Your task to perform on an android device: turn off location Image 0: 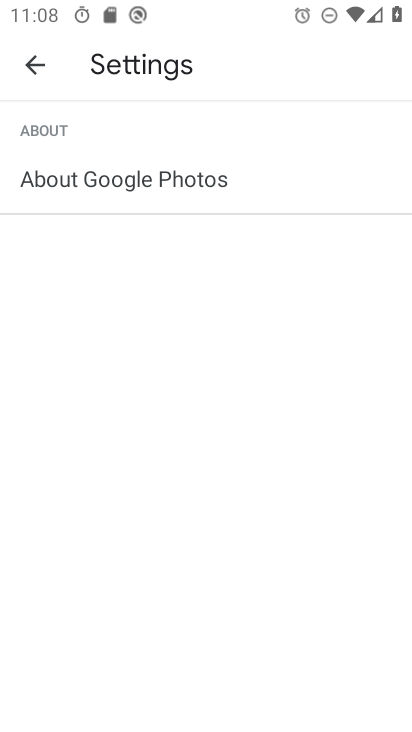
Step 0: press home button
Your task to perform on an android device: turn off location Image 1: 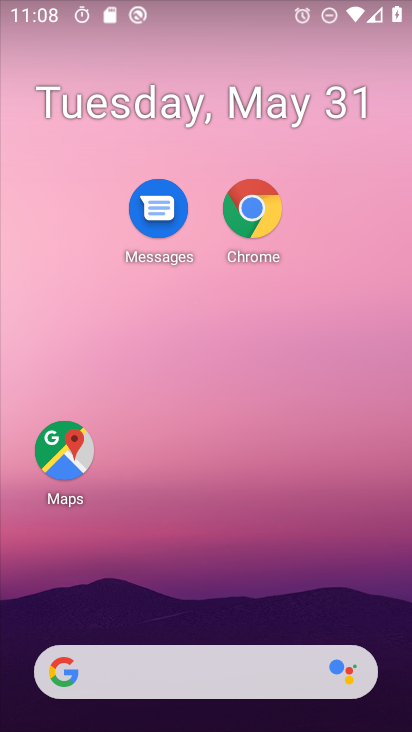
Step 1: drag from (208, 607) to (239, 92)
Your task to perform on an android device: turn off location Image 2: 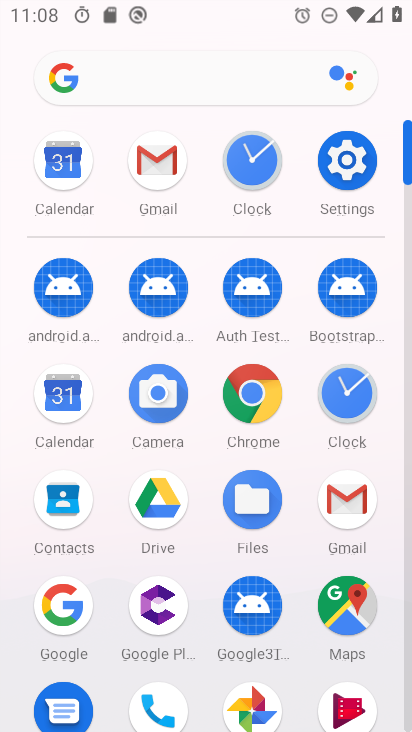
Step 2: click (345, 153)
Your task to perform on an android device: turn off location Image 3: 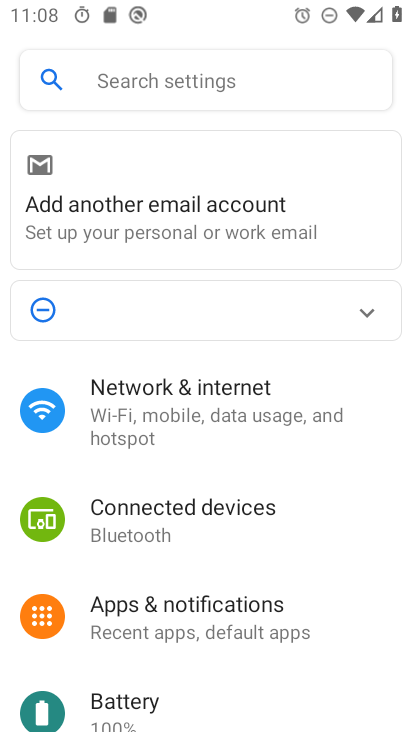
Step 3: drag from (195, 713) to (192, 633)
Your task to perform on an android device: turn off location Image 4: 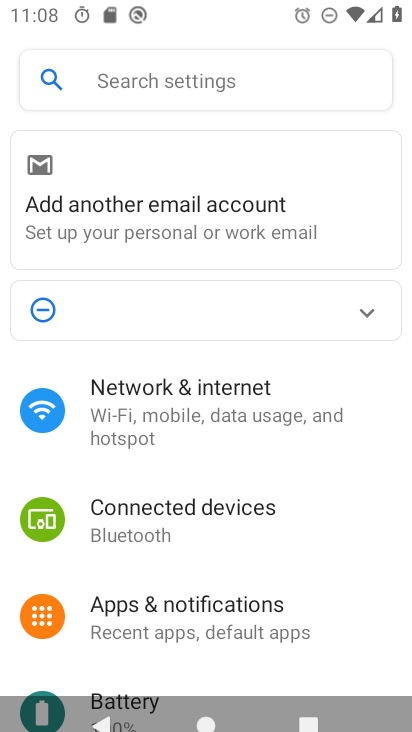
Step 4: drag from (193, 433) to (217, 154)
Your task to perform on an android device: turn off location Image 5: 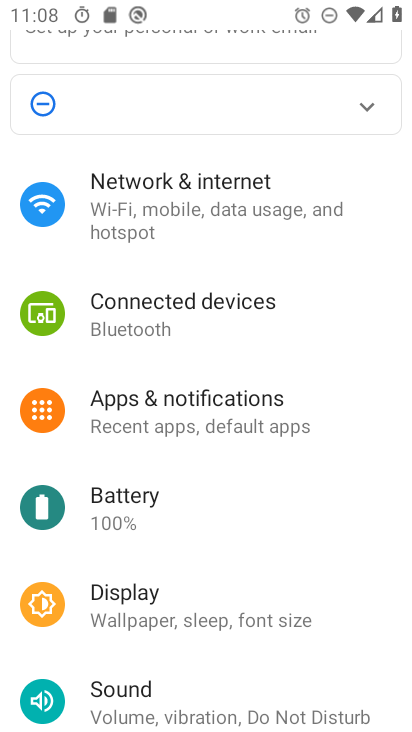
Step 5: drag from (224, 654) to (206, 134)
Your task to perform on an android device: turn off location Image 6: 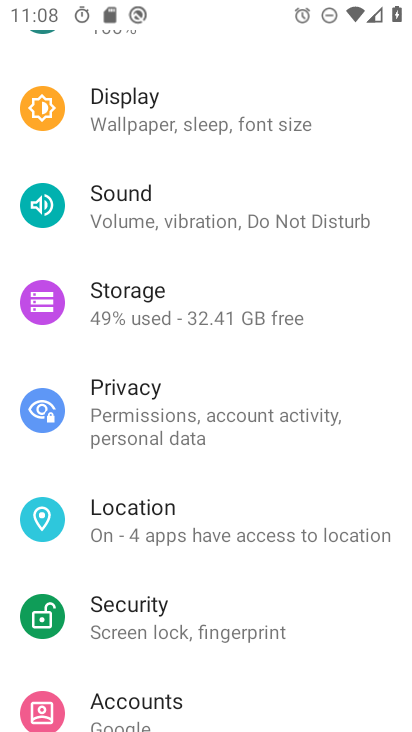
Step 6: click (211, 512)
Your task to perform on an android device: turn off location Image 7: 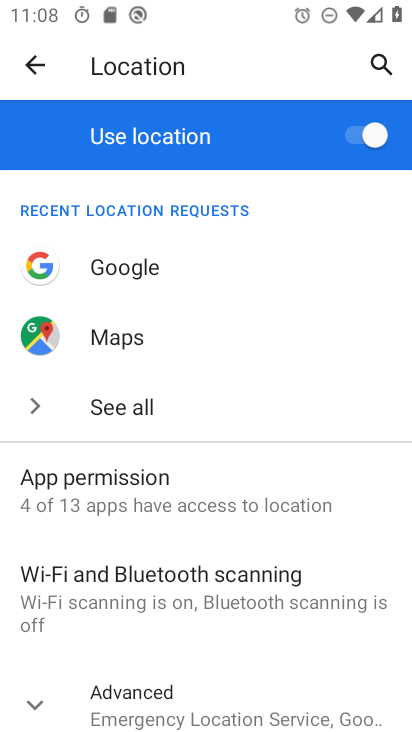
Step 7: click (353, 129)
Your task to perform on an android device: turn off location Image 8: 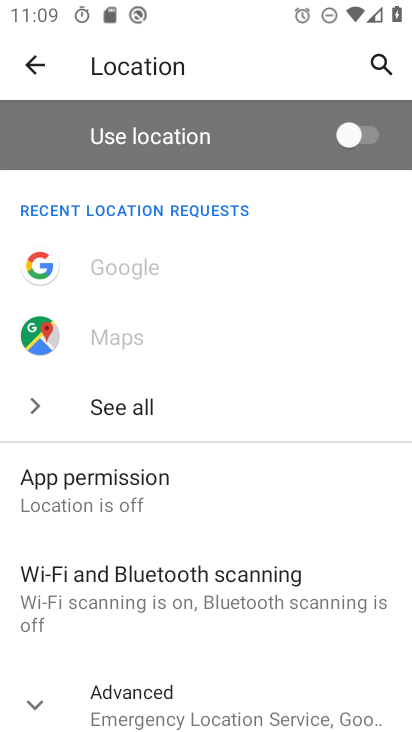
Step 8: task complete